Your task to perform on an android device: find which apps use the phone's location Image 0: 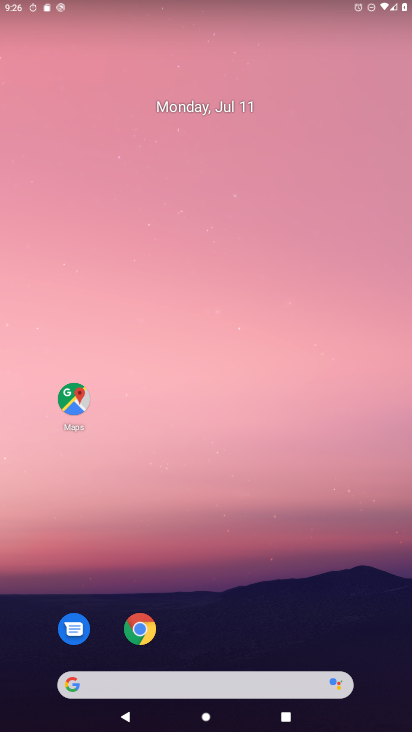
Step 0: drag from (215, 625) to (208, 155)
Your task to perform on an android device: find which apps use the phone's location Image 1: 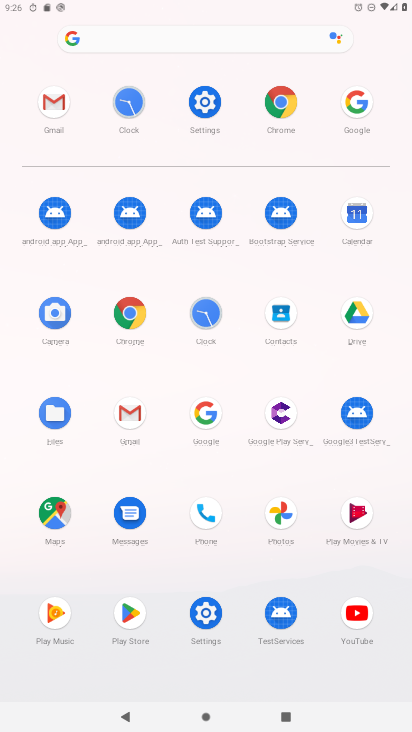
Step 1: click (204, 101)
Your task to perform on an android device: find which apps use the phone's location Image 2: 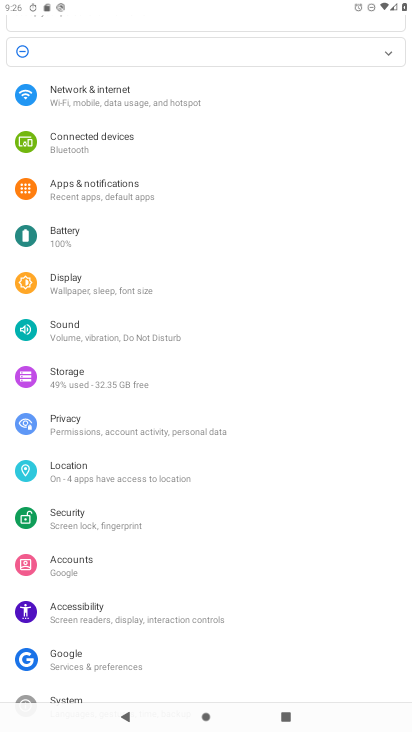
Step 2: click (87, 472)
Your task to perform on an android device: find which apps use the phone's location Image 3: 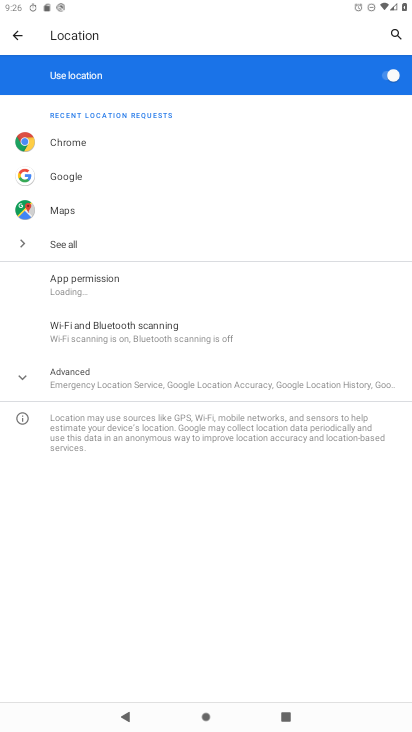
Step 3: click (95, 287)
Your task to perform on an android device: find which apps use the phone's location Image 4: 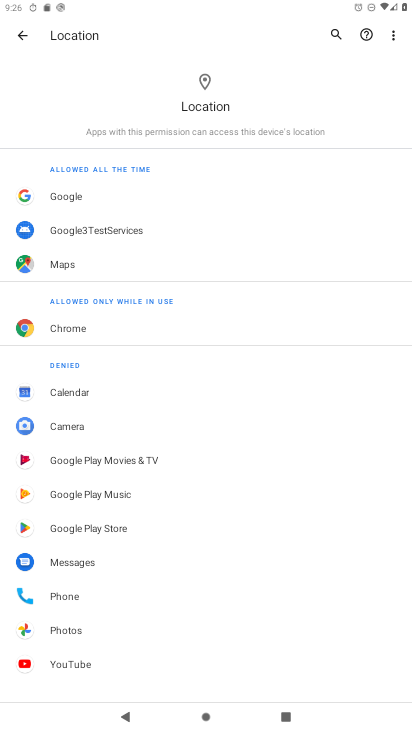
Step 4: task complete